Your task to perform on an android device: Open the stopwatch Image 0: 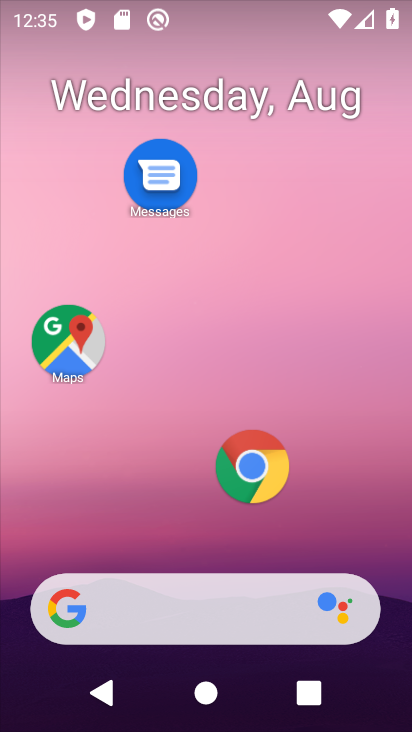
Step 0: drag from (201, 556) to (229, 172)
Your task to perform on an android device: Open the stopwatch Image 1: 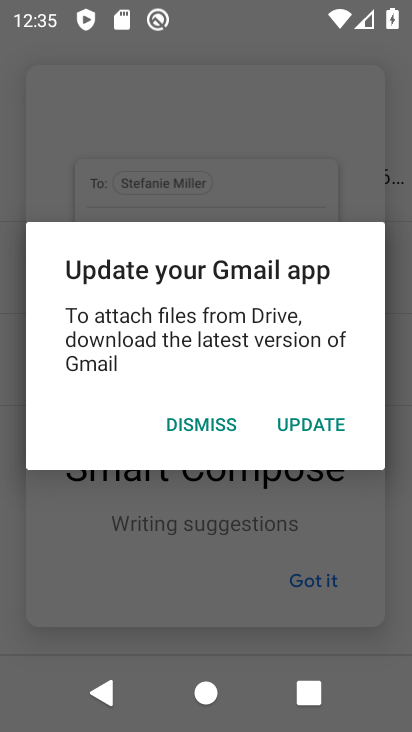
Step 1: press home button
Your task to perform on an android device: Open the stopwatch Image 2: 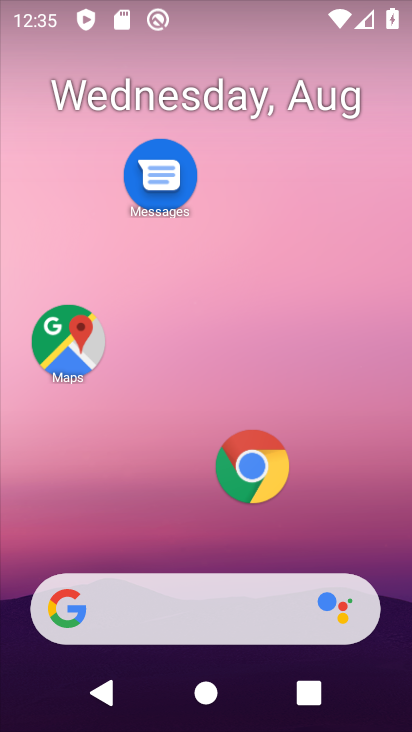
Step 2: drag from (195, 501) to (235, 357)
Your task to perform on an android device: Open the stopwatch Image 3: 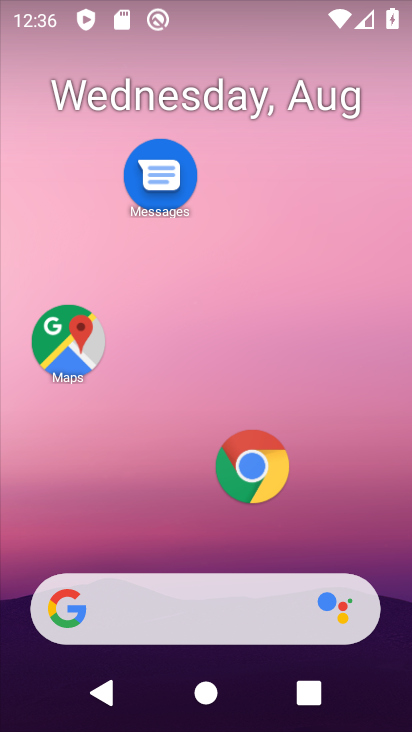
Step 3: drag from (190, 530) to (86, 3)
Your task to perform on an android device: Open the stopwatch Image 4: 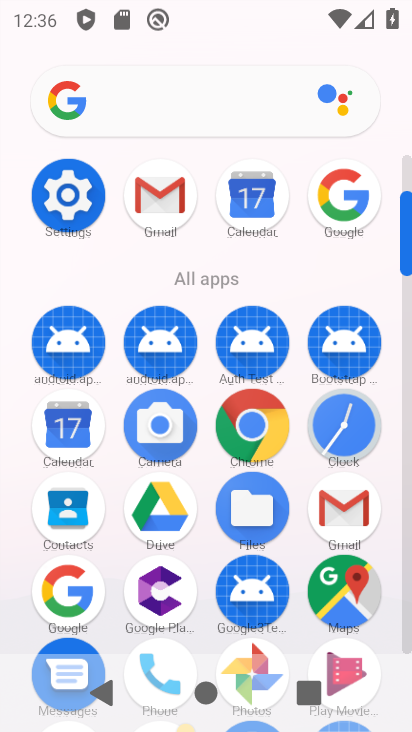
Step 4: click (353, 424)
Your task to perform on an android device: Open the stopwatch Image 5: 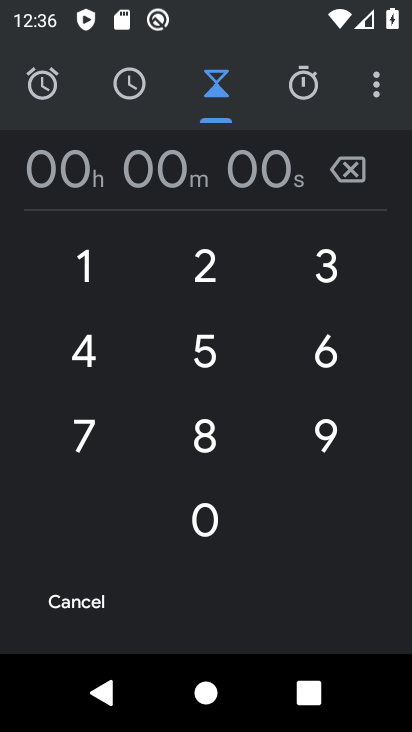
Step 5: click (309, 101)
Your task to perform on an android device: Open the stopwatch Image 6: 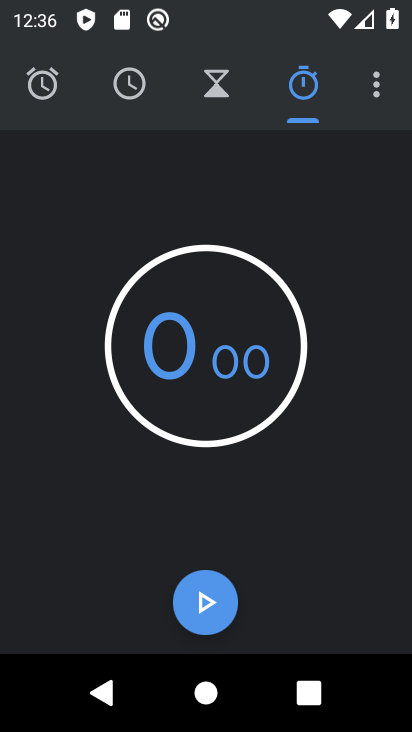
Step 6: task complete